Your task to perform on an android device: show emergency info Image 0: 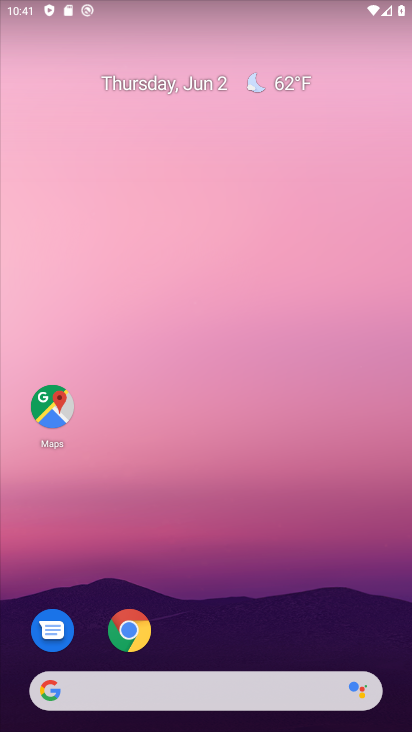
Step 0: press home button
Your task to perform on an android device: show emergency info Image 1: 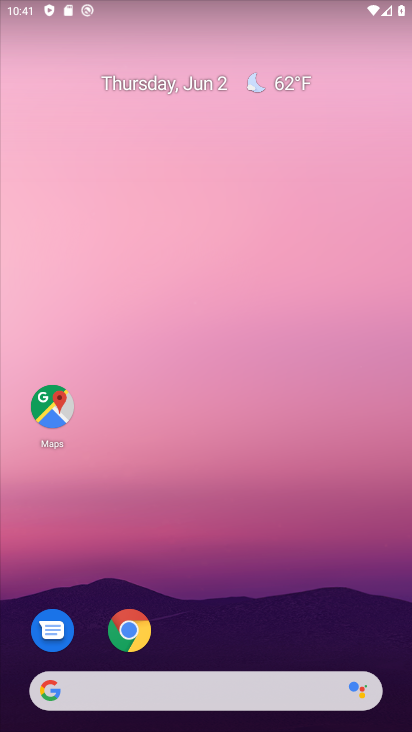
Step 1: drag from (180, 682) to (314, 46)
Your task to perform on an android device: show emergency info Image 2: 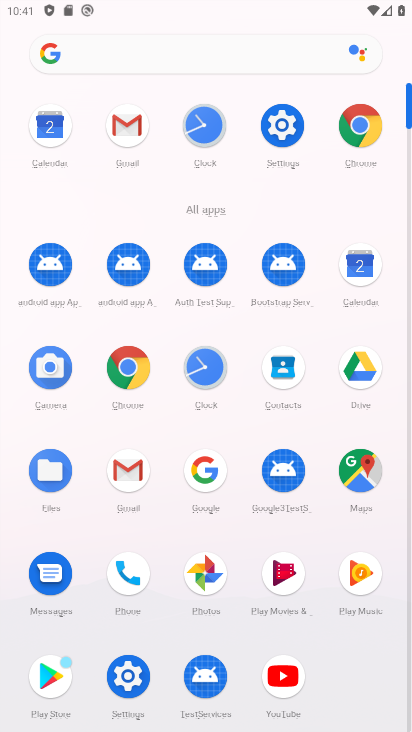
Step 2: click (285, 127)
Your task to perform on an android device: show emergency info Image 3: 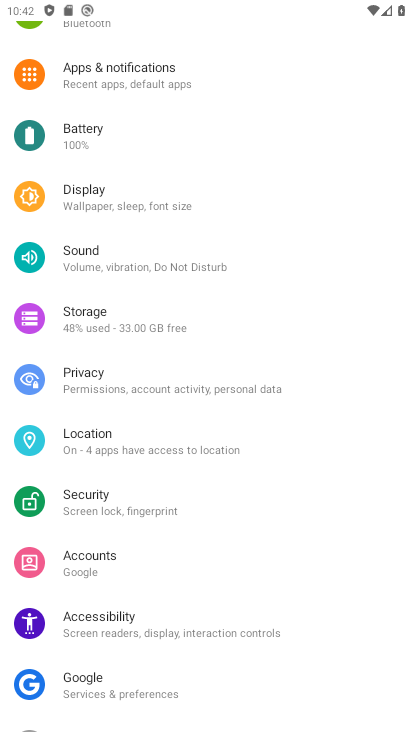
Step 3: drag from (212, 666) to (272, 81)
Your task to perform on an android device: show emergency info Image 4: 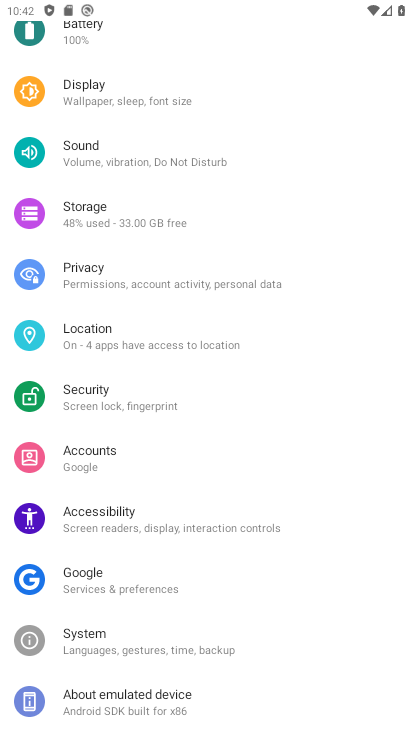
Step 4: click (121, 702)
Your task to perform on an android device: show emergency info Image 5: 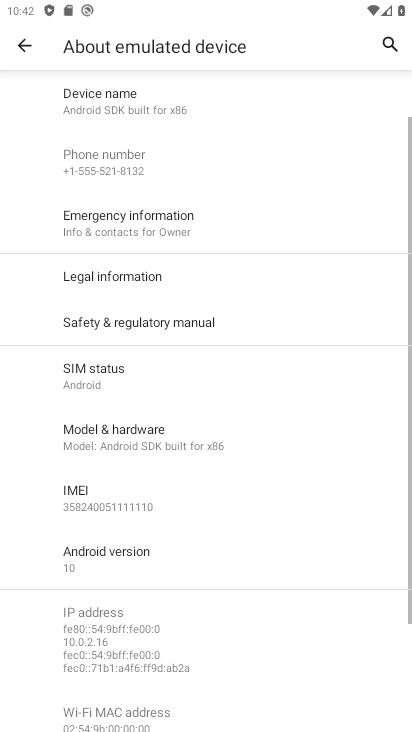
Step 5: click (160, 226)
Your task to perform on an android device: show emergency info Image 6: 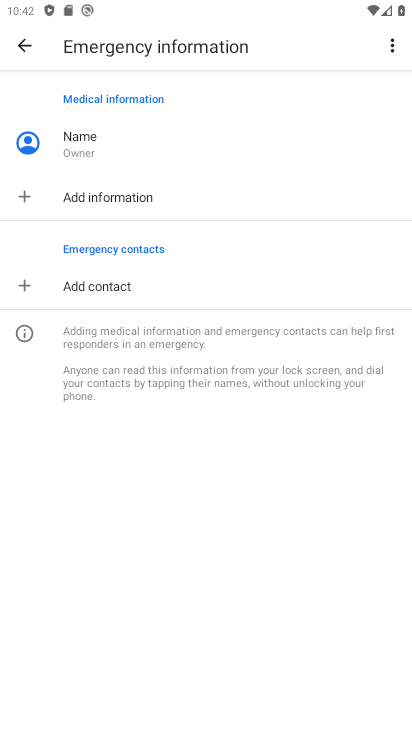
Step 6: task complete